Your task to perform on an android device: turn on improve location accuracy Image 0: 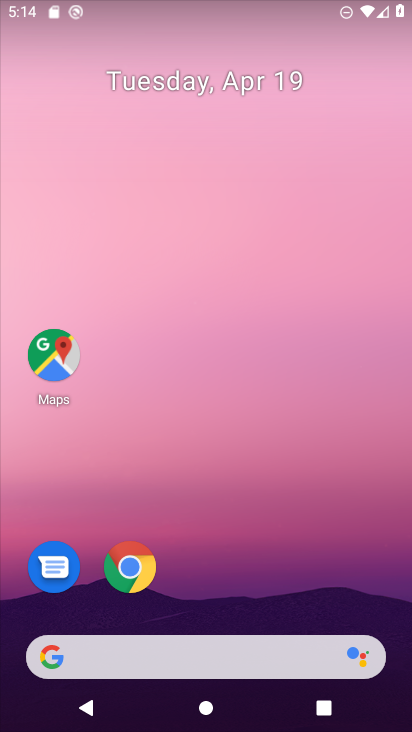
Step 0: drag from (284, 517) to (43, 0)
Your task to perform on an android device: turn on improve location accuracy Image 1: 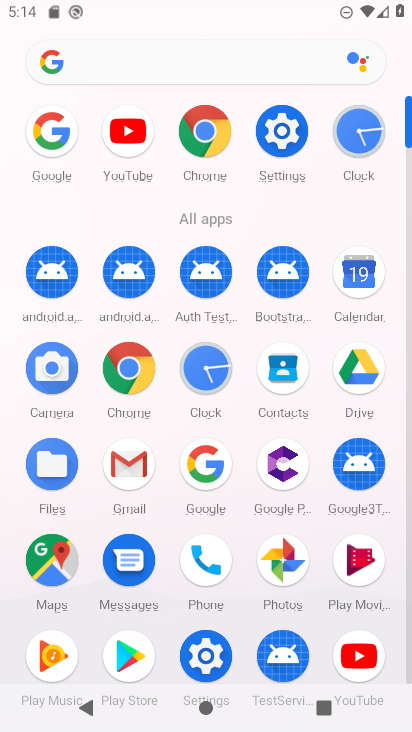
Step 1: click (17, 268)
Your task to perform on an android device: turn on improve location accuracy Image 2: 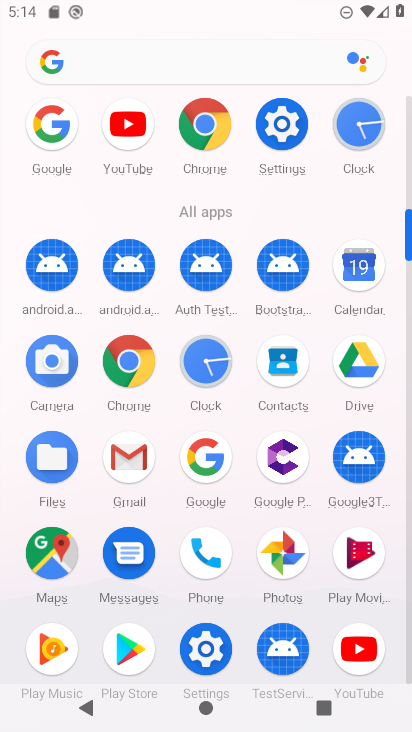
Step 2: drag from (5, 424) to (6, 171)
Your task to perform on an android device: turn on improve location accuracy Image 3: 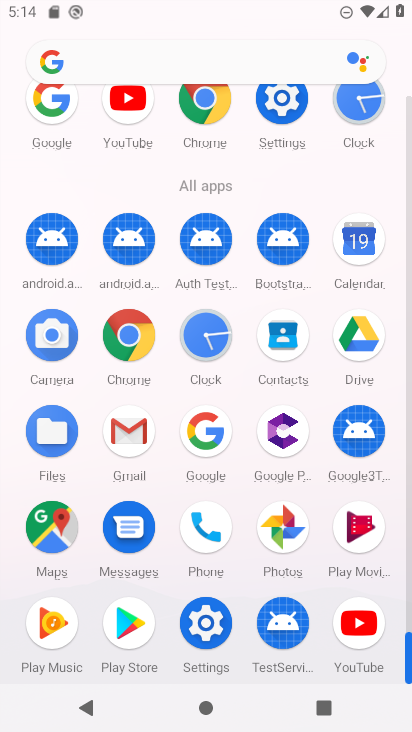
Step 3: click (206, 622)
Your task to perform on an android device: turn on improve location accuracy Image 4: 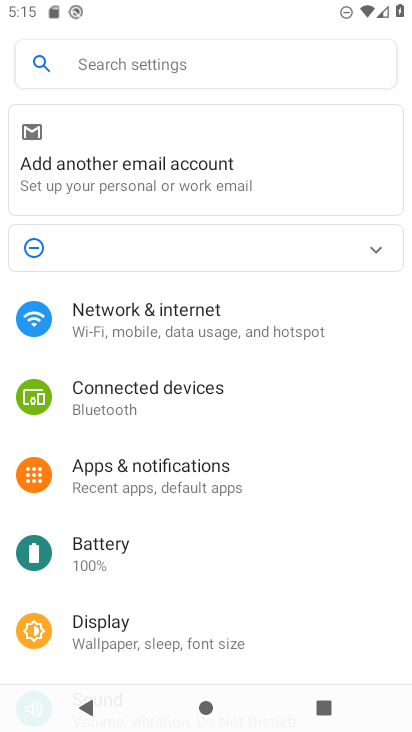
Step 4: drag from (243, 570) to (239, 84)
Your task to perform on an android device: turn on improve location accuracy Image 5: 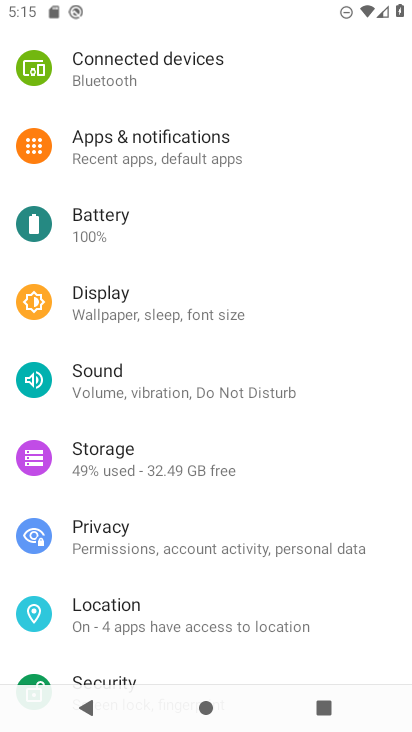
Step 5: click (189, 617)
Your task to perform on an android device: turn on improve location accuracy Image 6: 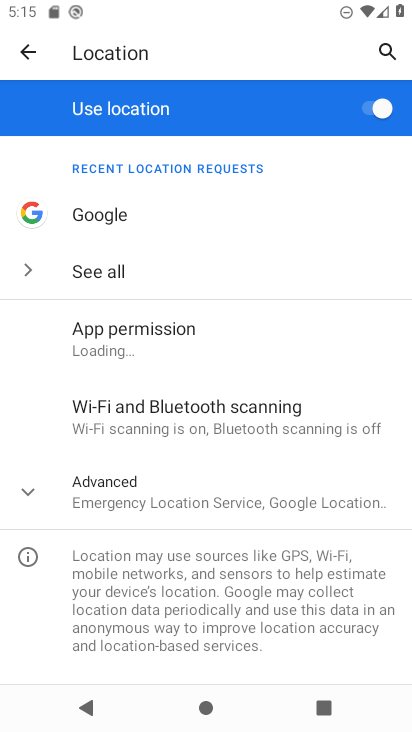
Step 6: click (224, 493)
Your task to perform on an android device: turn on improve location accuracy Image 7: 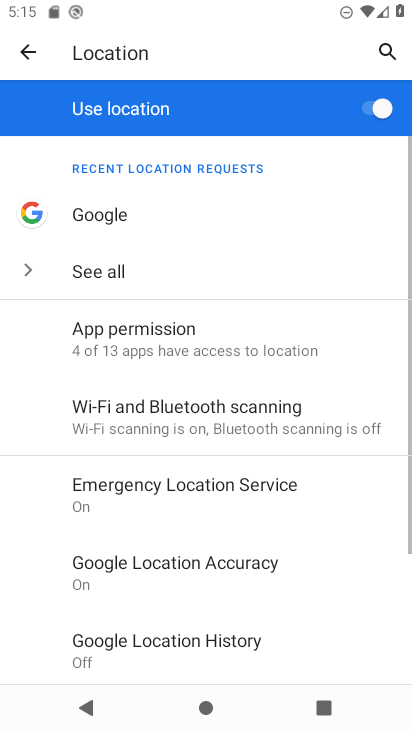
Step 7: drag from (273, 591) to (273, 308)
Your task to perform on an android device: turn on improve location accuracy Image 8: 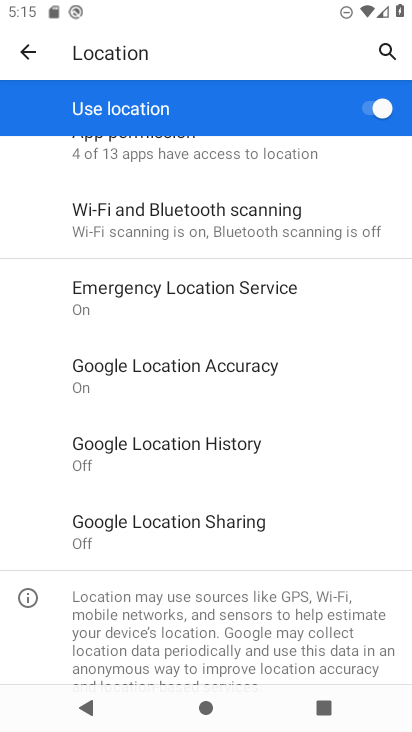
Step 8: click (235, 379)
Your task to perform on an android device: turn on improve location accuracy Image 9: 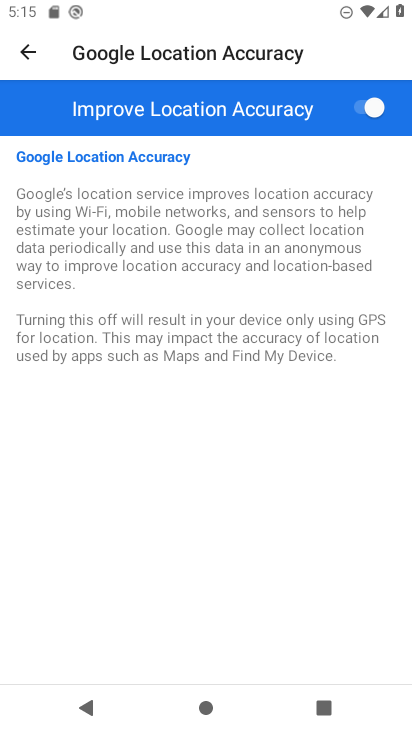
Step 9: task complete